Your task to perform on an android device: Go to accessibility settings Image 0: 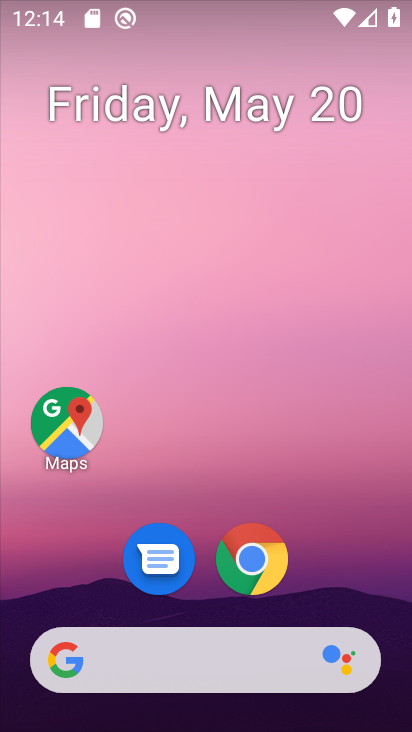
Step 0: drag from (331, 599) to (225, 112)
Your task to perform on an android device: Go to accessibility settings Image 1: 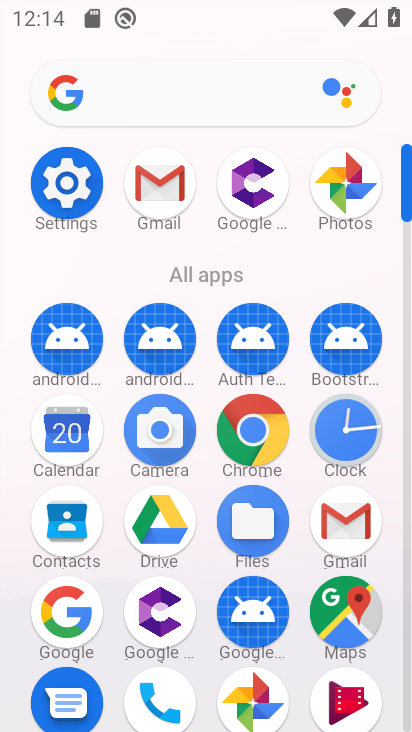
Step 1: click (78, 183)
Your task to perform on an android device: Go to accessibility settings Image 2: 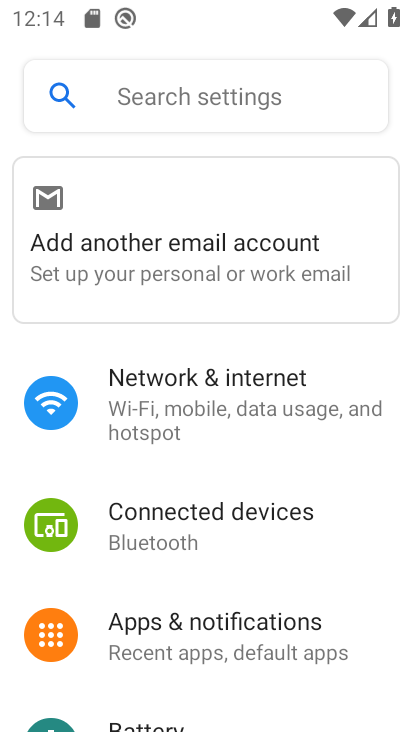
Step 2: drag from (350, 666) to (249, 314)
Your task to perform on an android device: Go to accessibility settings Image 3: 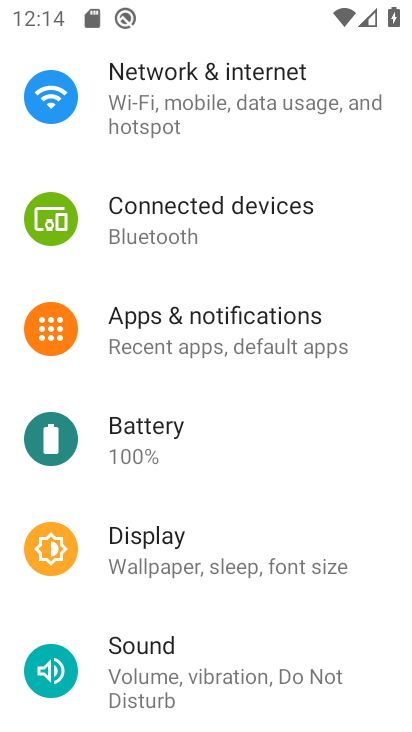
Step 3: drag from (282, 730) to (242, 435)
Your task to perform on an android device: Go to accessibility settings Image 4: 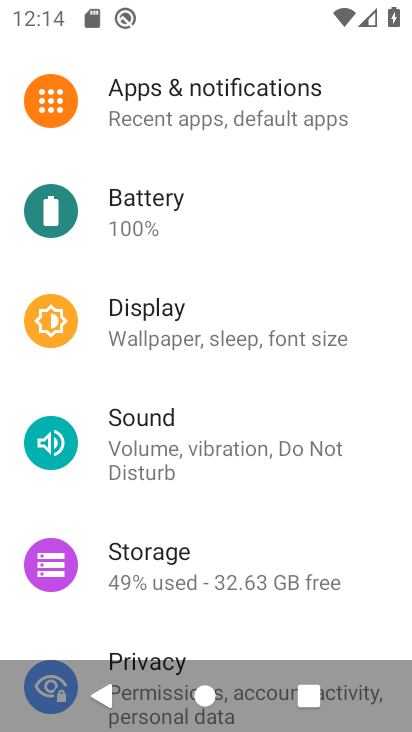
Step 4: drag from (265, 515) to (232, 154)
Your task to perform on an android device: Go to accessibility settings Image 5: 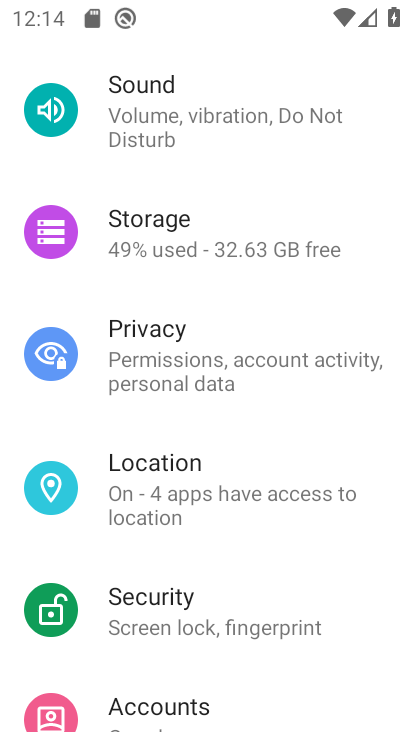
Step 5: drag from (297, 575) to (226, 160)
Your task to perform on an android device: Go to accessibility settings Image 6: 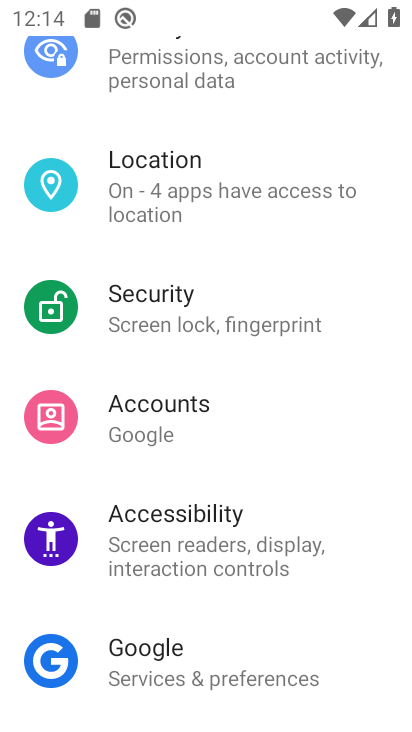
Step 6: click (241, 529)
Your task to perform on an android device: Go to accessibility settings Image 7: 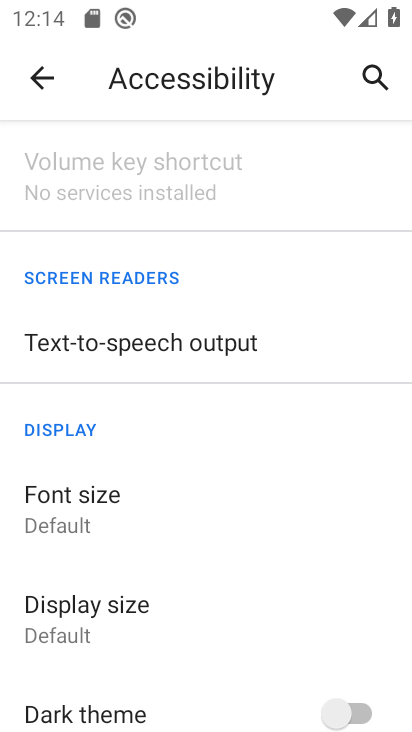
Step 7: task complete